Your task to perform on an android device: Is it going to rain this weekend? Image 0: 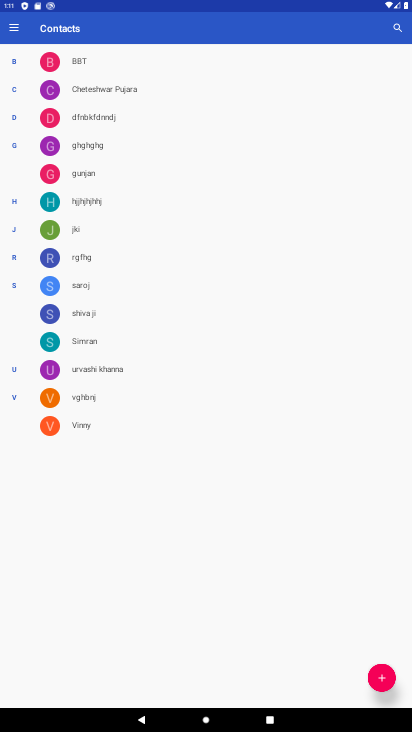
Step 0: press home button
Your task to perform on an android device: Is it going to rain this weekend? Image 1: 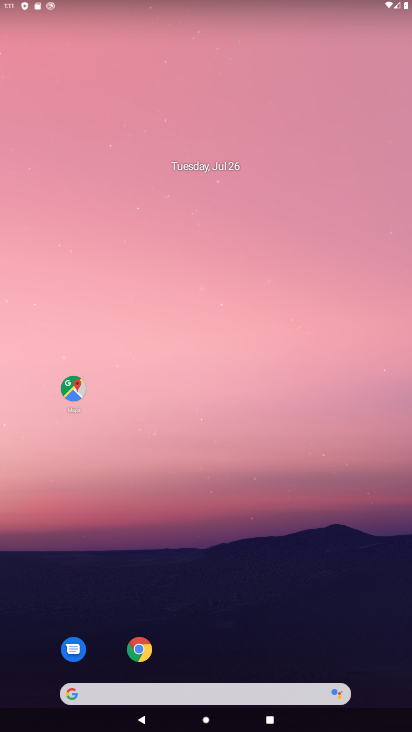
Step 1: drag from (207, 647) to (211, 558)
Your task to perform on an android device: Is it going to rain this weekend? Image 2: 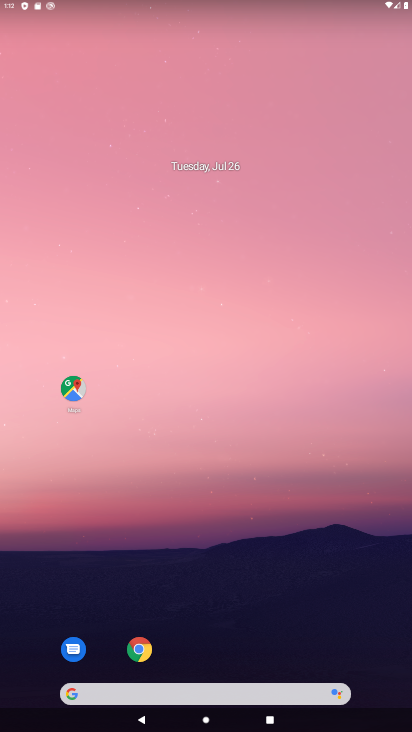
Step 2: click (140, 682)
Your task to perform on an android device: Is it going to rain this weekend? Image 3: 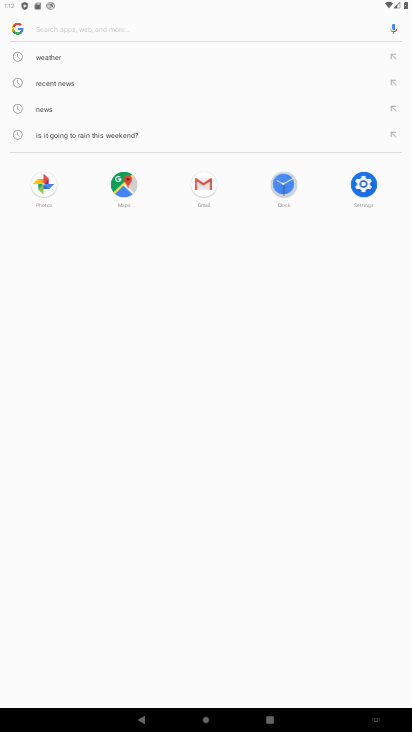
Step 3: click (71, 54)
Your task to perform on an android device: Is it going to rain this weekend? Image 4: 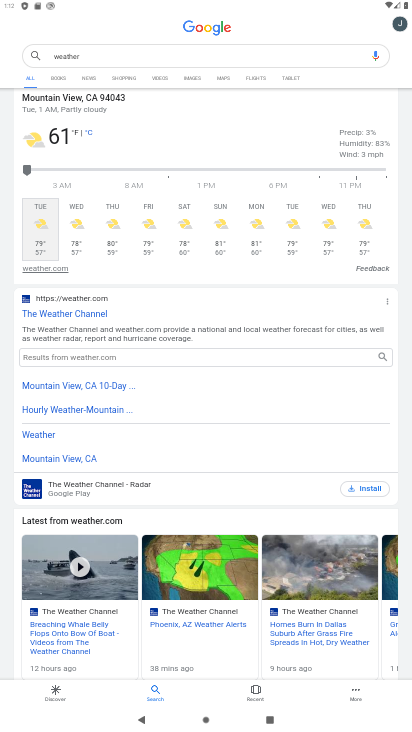
Step 4: click (185, 220)
Your task to perform on an android device: Is it going to rain this weekend? Image 5: 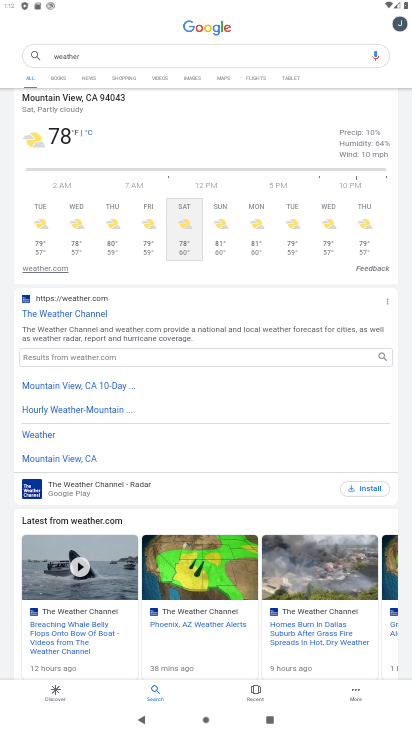
Step 5: task complete